Your task to perform on an android device: move an email to a new category in the gmail app Image 0: 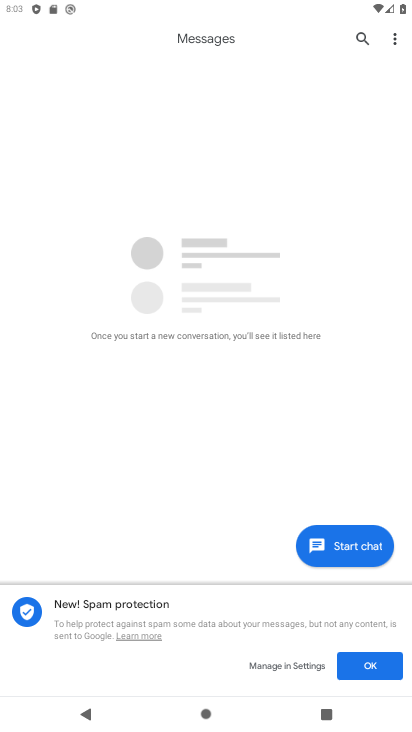
Step 0: press home button
Your task to perform on an android device: move an email to a new category in the gmail app Image 1: 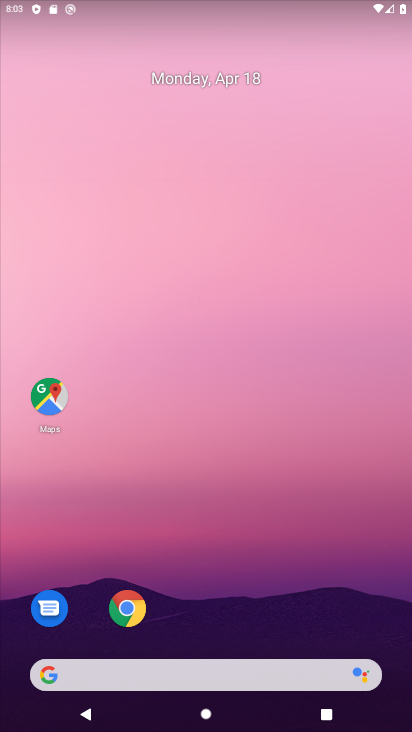
Step 1: drag from (252, 469) to (250, 203)
Your task to perform on an android device: move an email to a new category in the gmail app Image 2: 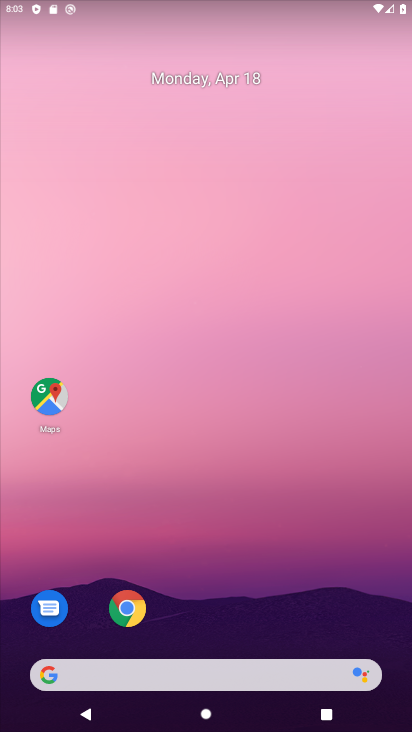
Step 2: drag from (244, 615) to (234, 216)
Your task to perform on an android device: move an email to a new category in the gmail app Image 3: 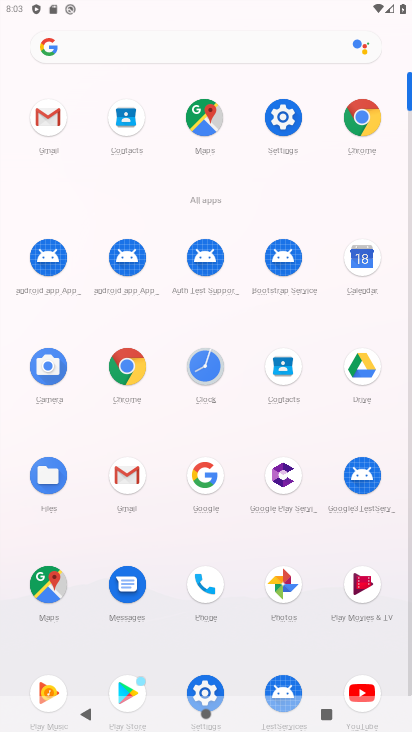
Step 3: click (45, 116)
Your task to perform on an android device: move an email to a new category in the gmail app Image 4: 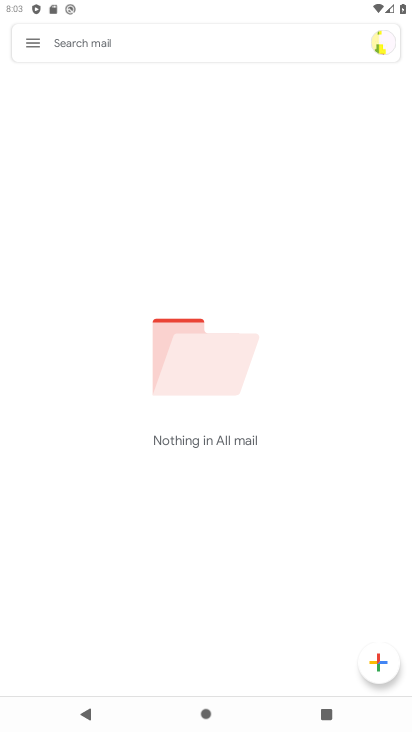
Step 4: click (31, 44)
Your task to perform on an android device: move an email to a new category in the gmail app Image 5: 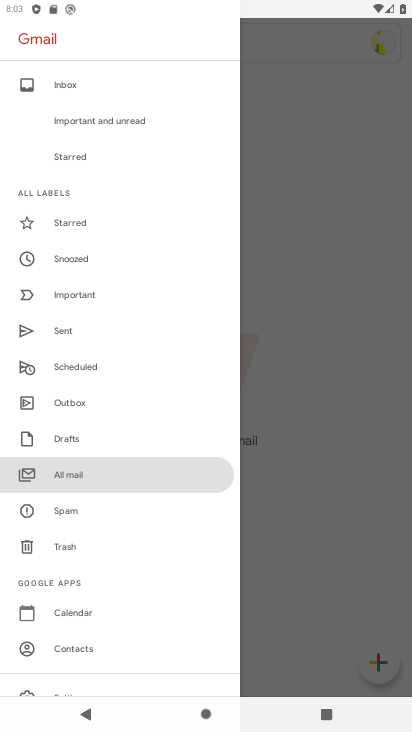
Step 5: click (270, 430)
Your task to perform on an android device: move an email to a new category in the gmail app Image 6: 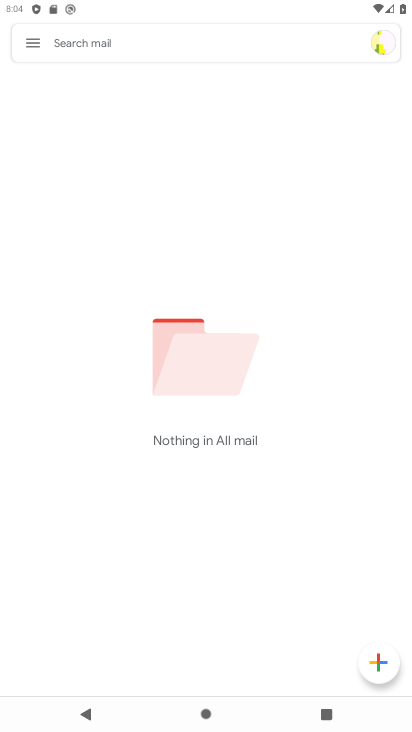
Step 6: task complete